Your task to perform on an android device: set the stopwatch Image 0: 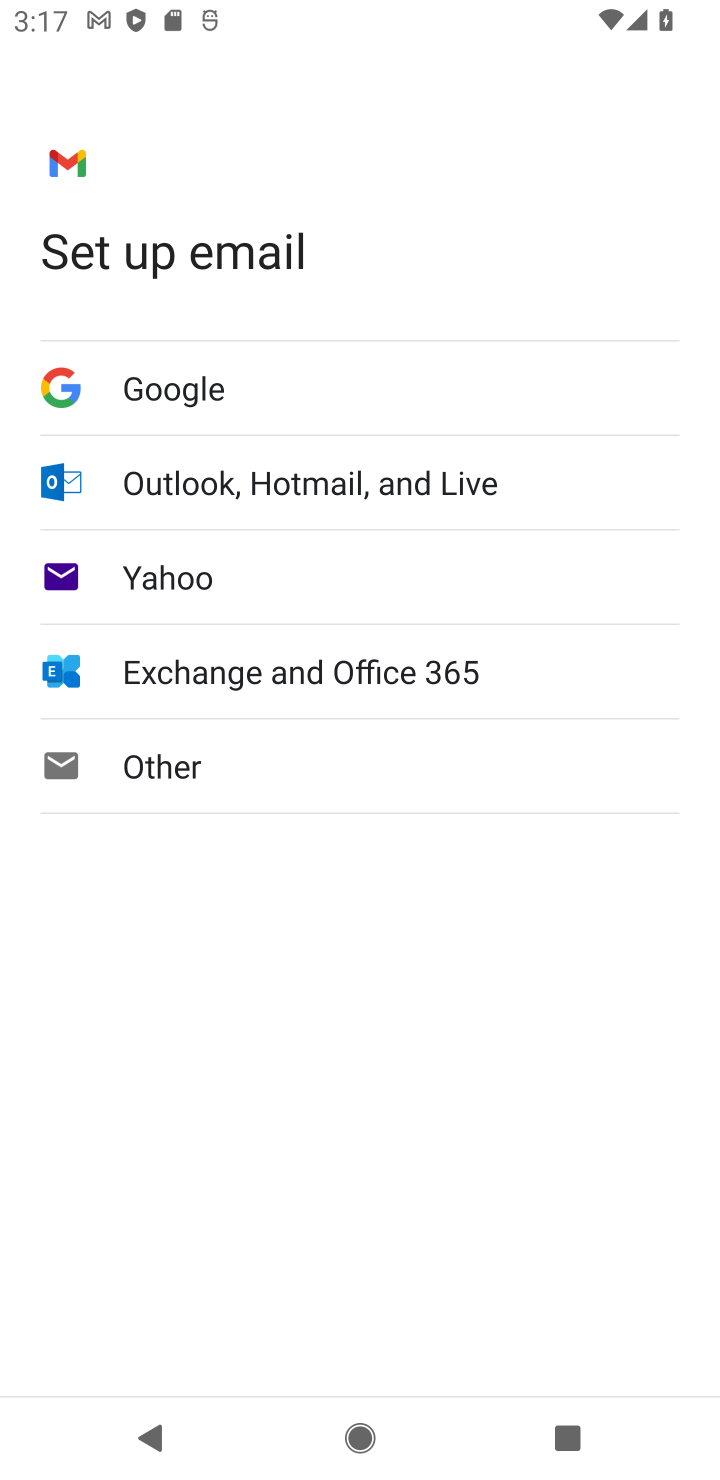
Step 0: task complete